Your task to perform on an android device: turn on airplane mode Image 0: 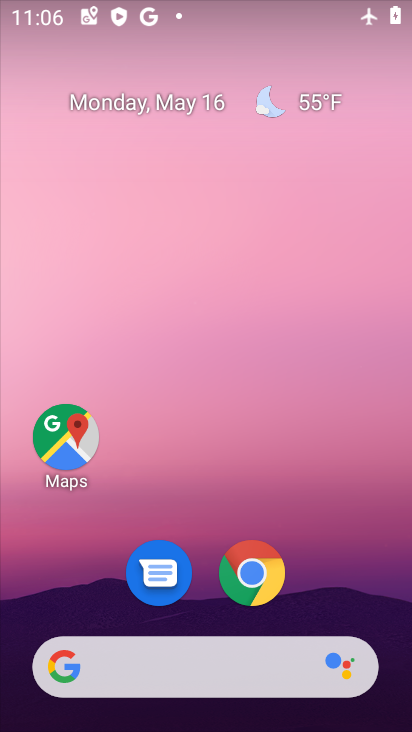
Step 0: drag from (359, 8) to (329, 480)
Your task to perform on an android device: turn on airplane mode Image 1: 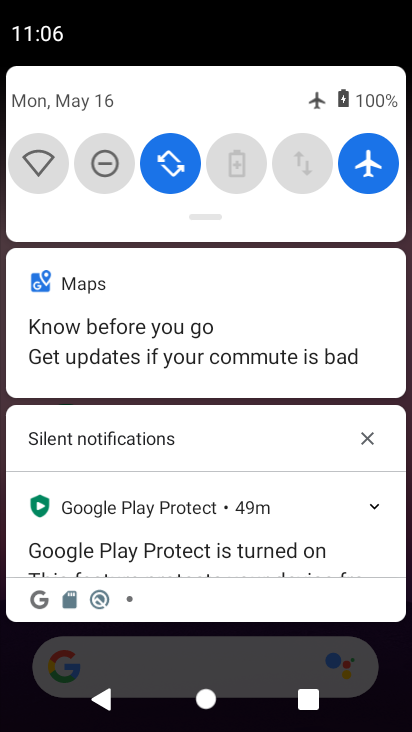
Step 1: task complete